Your task to perform on an android device: Go to Maps Image 0: 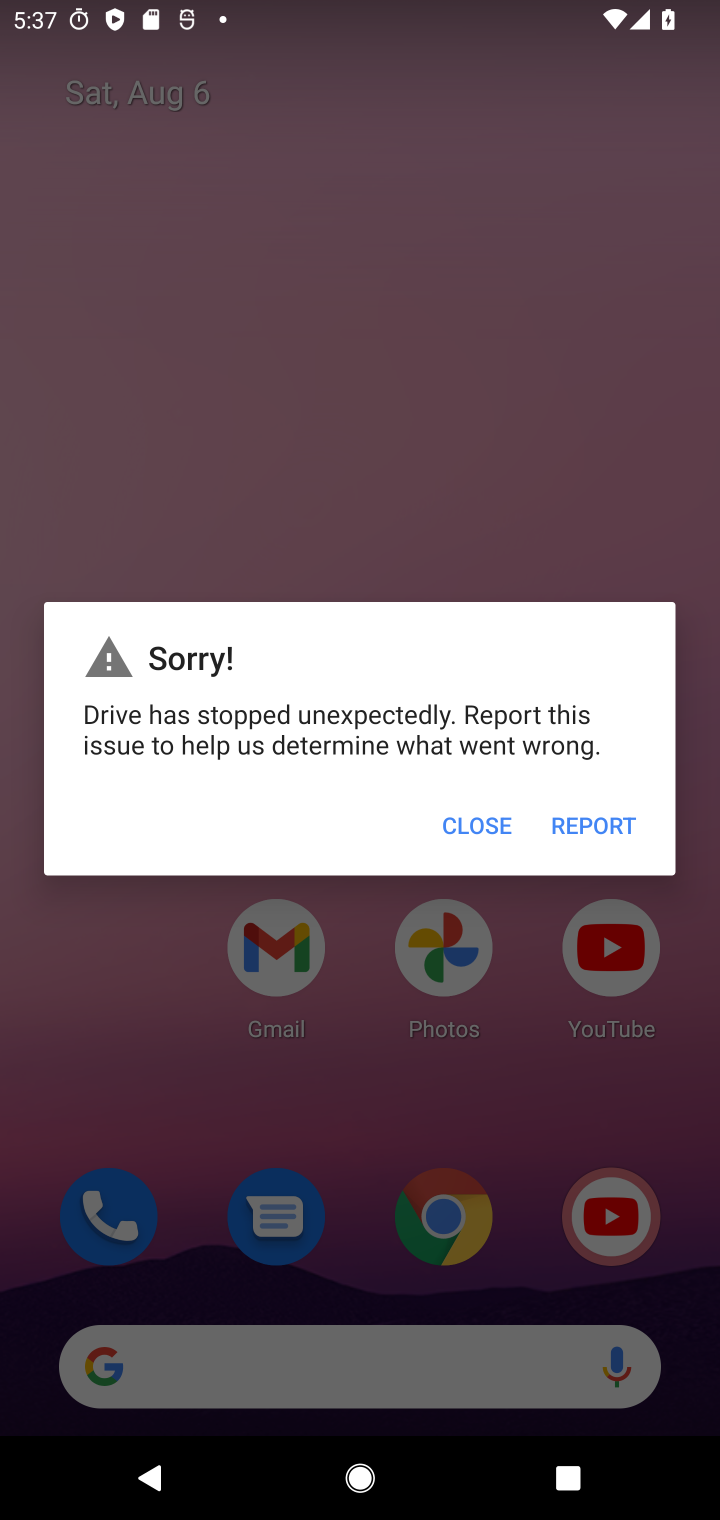
Step 0: press home button
Your task to perform on an android device: Go to Maps Image 1: 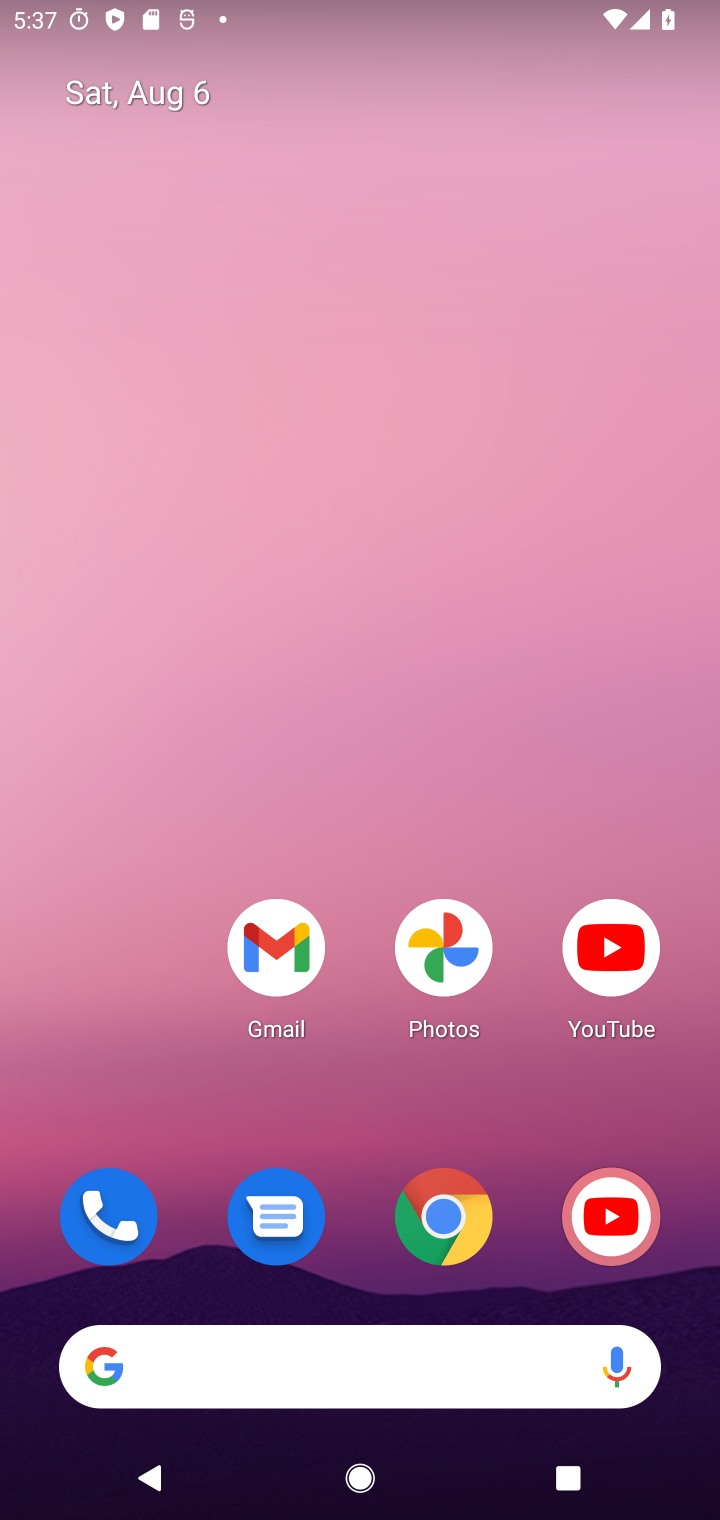
Step 1: drag from (367, 1067) to (463, 144)
Your task to perform on an android device: Go to Maps Image 2: 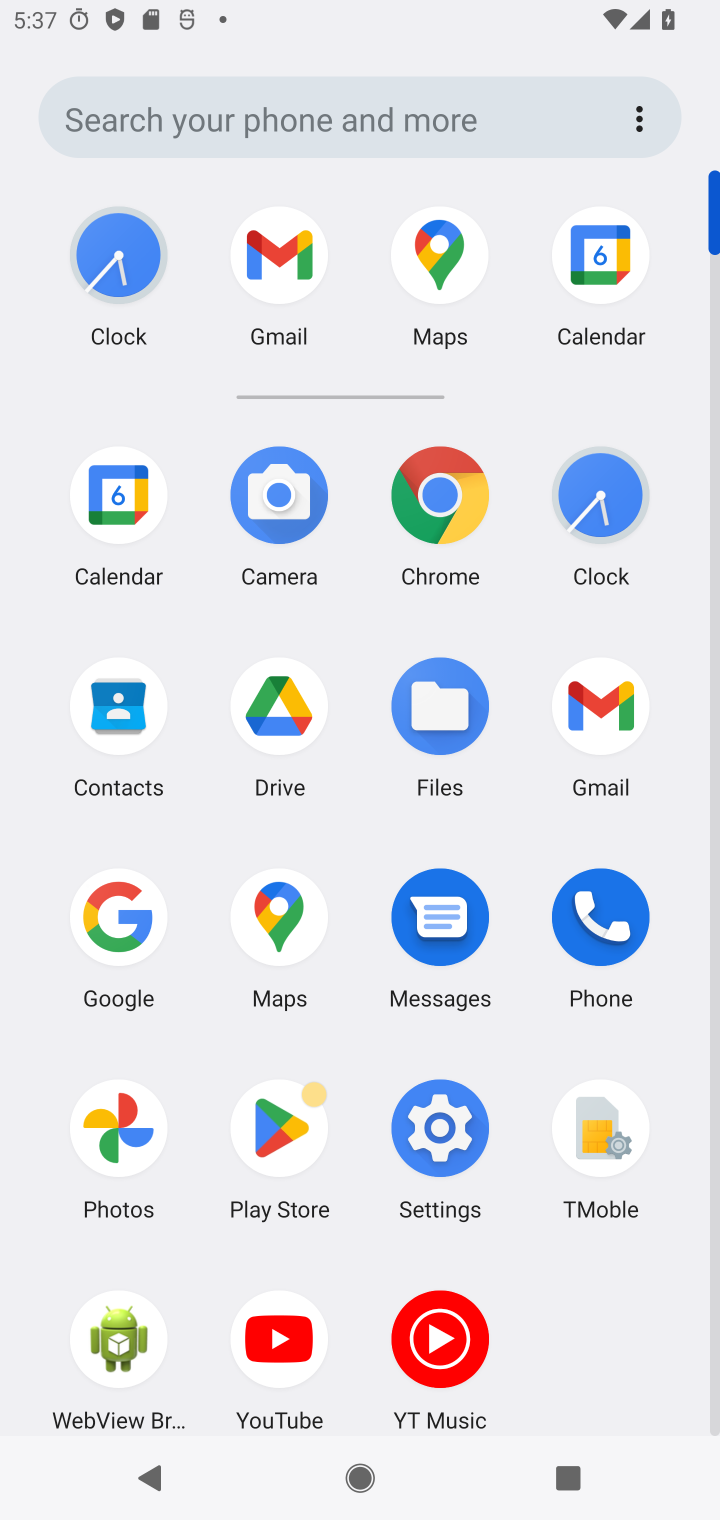
Step 2: click (281, 937)
Your task to perform on an android device: Go to Maps Image 3: 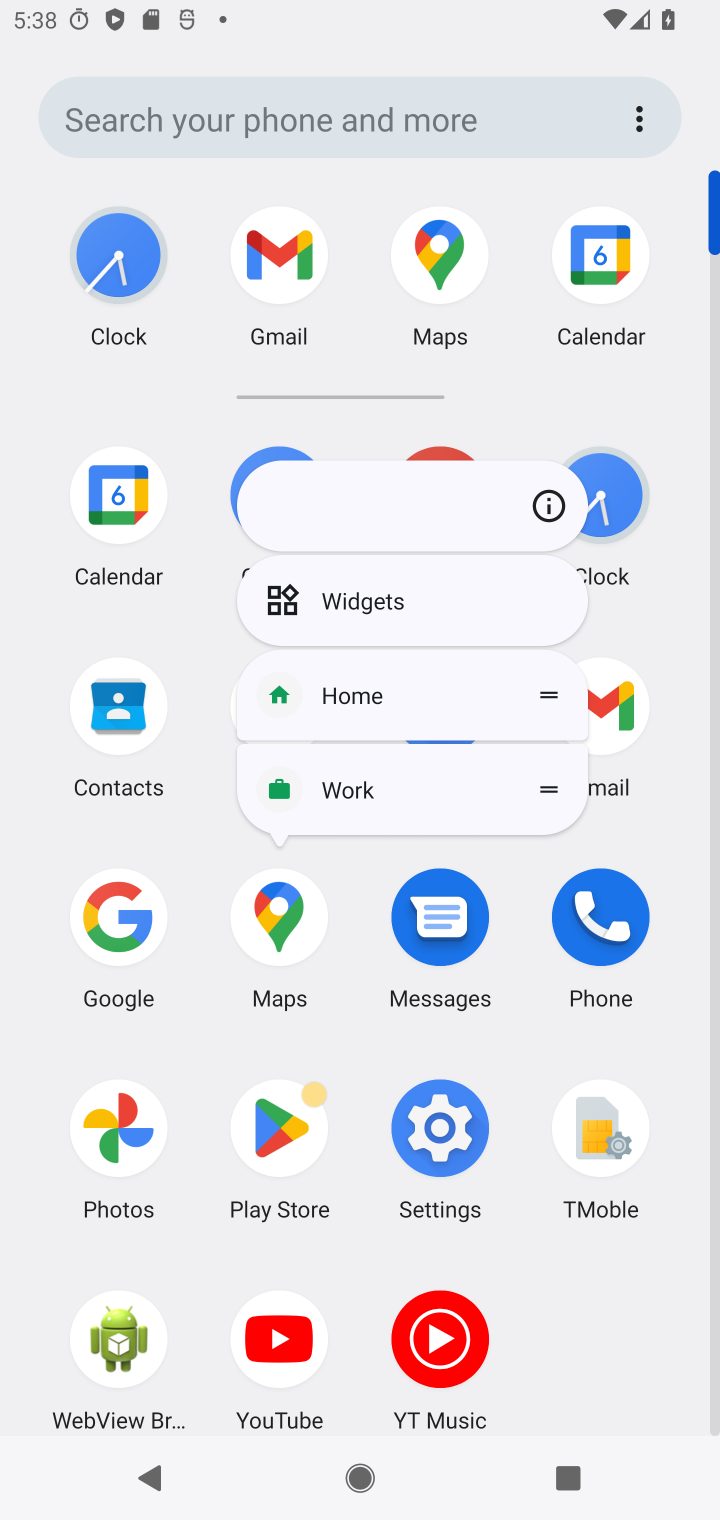
Step 3: click (275, 932)
Your task to perform on an android device: Go to Maps Image 4: 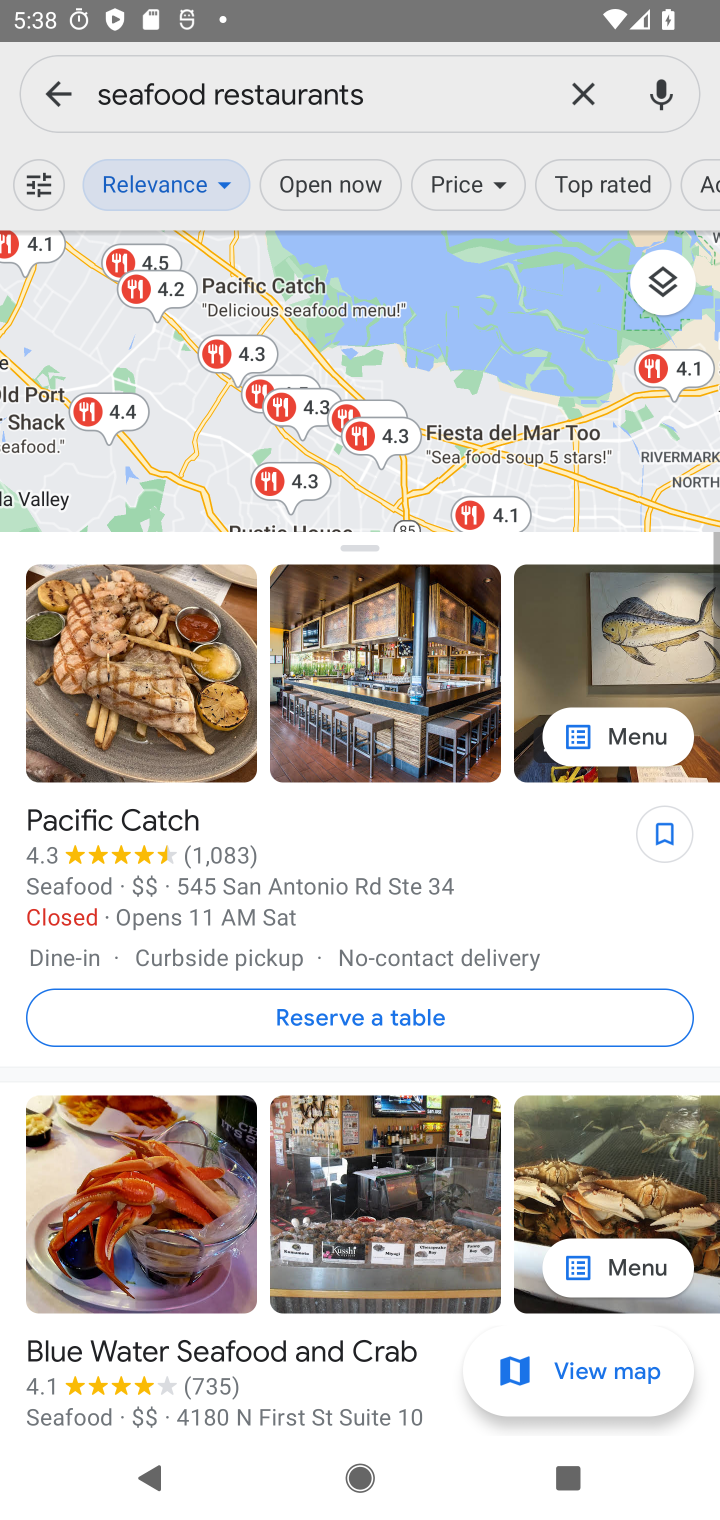
Step 4: task complete